Your task to perform on an android device: Turn off the flashlight Image 0: 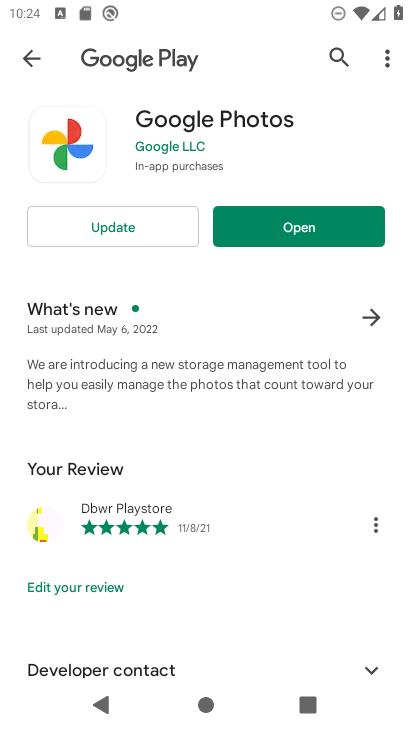
Step 0: press home button
Your task to perform on an android device: Turn off the flashlight Image 1: 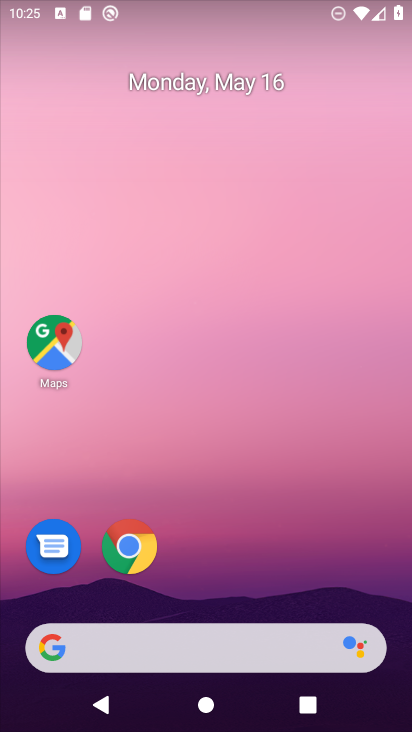
Step 1: drag from (322, 600) to (373, 204)
Your task to perform on an android device: Turn off the flashlight Image 2: 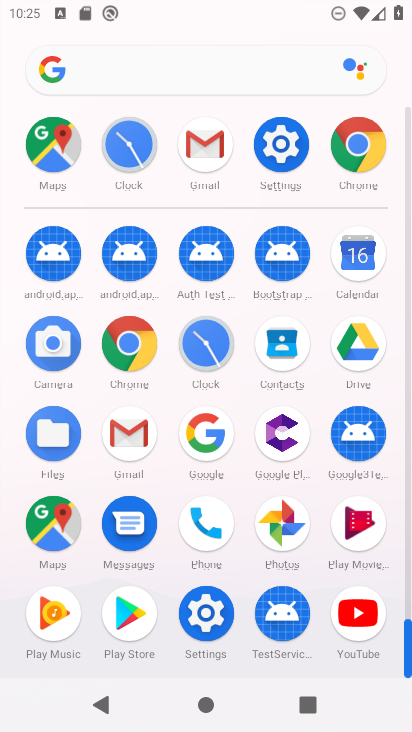
Step 2: click (300, 139)
Your task to perform on an android device: Turn off the flashlight Image 3: 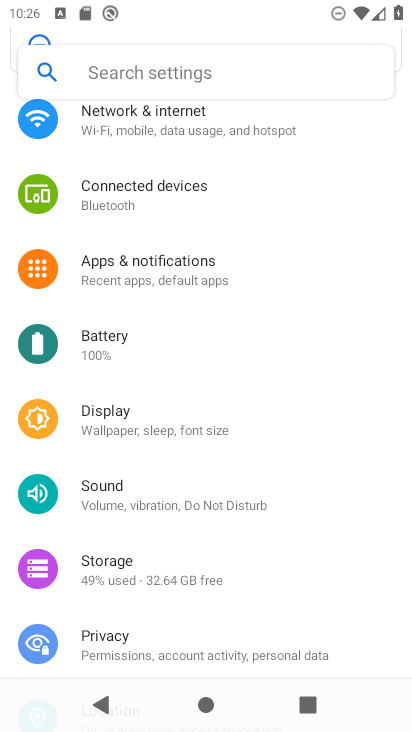
Step 3: task complete